Your task to perform on an android device: Open calendar and show me the third week of next month Image 0: 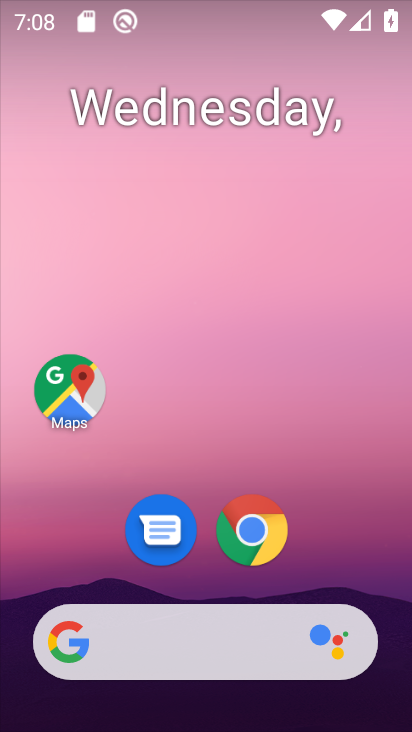
Step 0: drag from (397, 632) to (234, 114)
Your task to perform on an android device: Open calendar and show me the third week of next month Image 1: 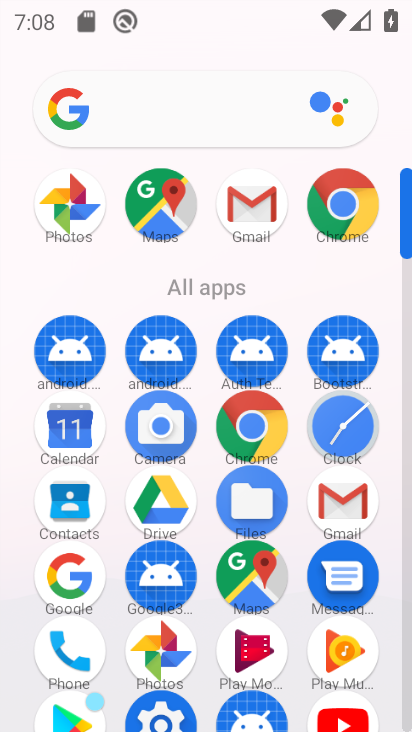
Step 1: click (68, 440)
Your task to perform on an android device: Open calendar and show me the third week of next month Image 2: 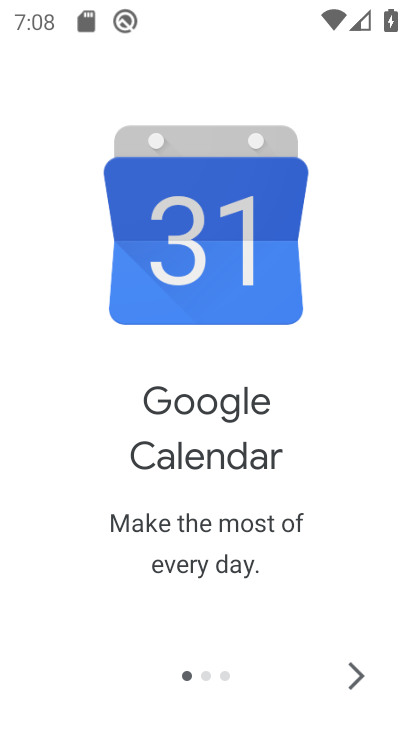
Step 2: click (350, 670)
Your task to perform on an android device: Open calendar and show me the third week of next month Image 3: 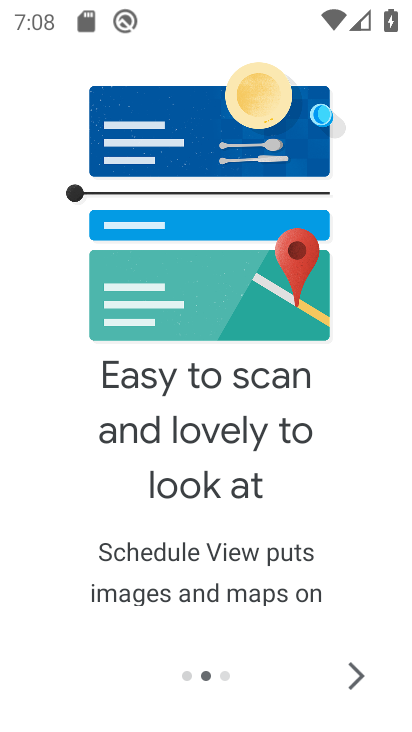
Step 3: click (350, 670)
Your task to perform on an android device: Open calendar and show me the third week of next month Image 4: 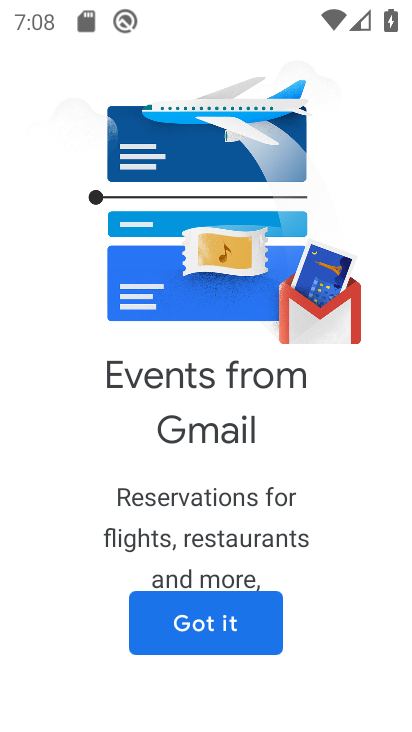
Step 4: click (206, 626)
Your task to perform on an android device: Open calendar and show me the third week of next month Image 5: 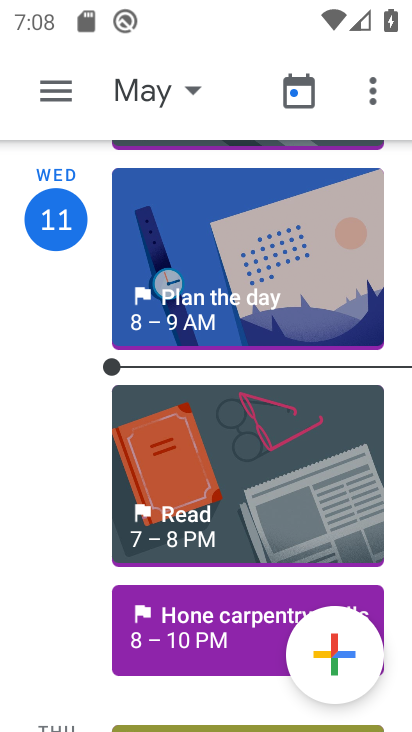
Step 5: click (149, 87)
Your task to perform on an android device: Open calendar and show me the third week of next month Image 6: 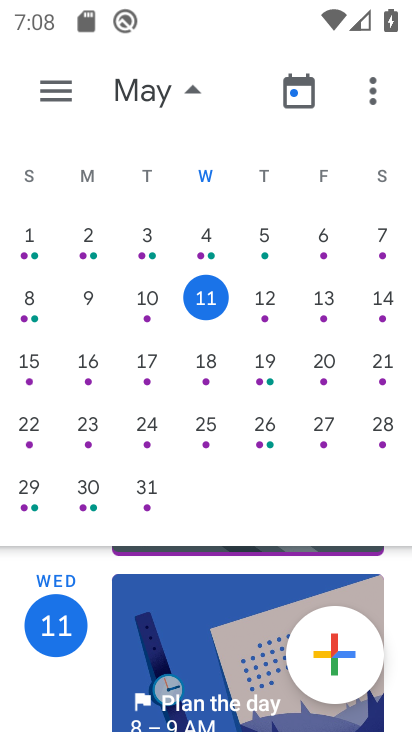
Step 6: drag from (352, 368) to (4, 359)
Your task to perform on an android device: Open calendar and show me the third week of next month Image 7: 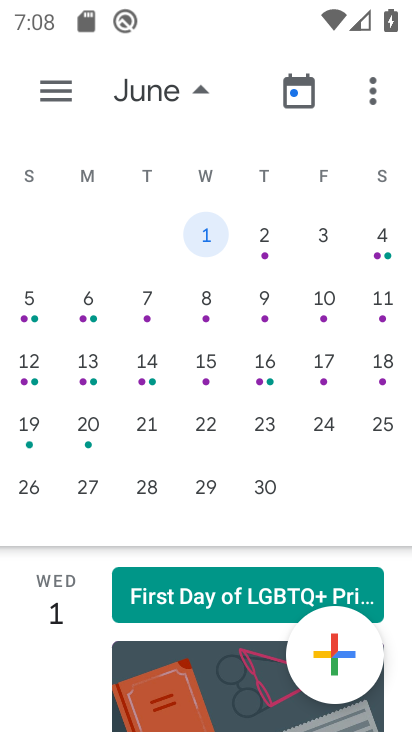
Step 7: click (86, 432)
Your task to perform on an android device: Open calendar and show me the third week of next month Image 8: 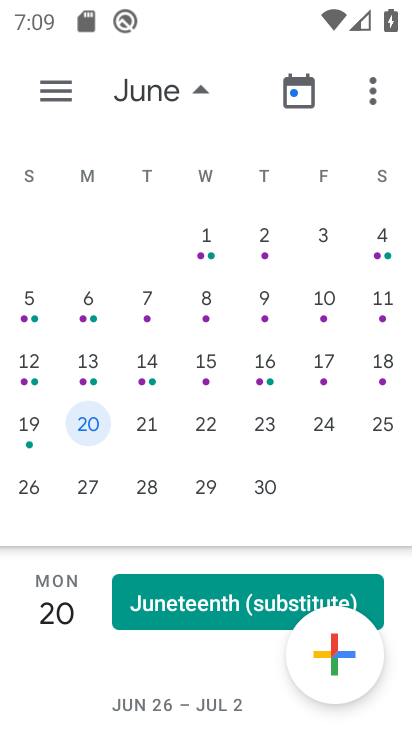
Step 8: task complete